Your task to perform on an android device: Open Google Chrome and open the bookmarks view Image 0: 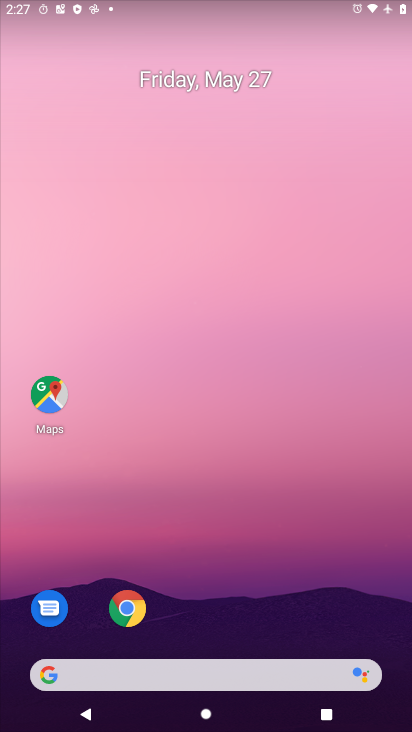
Step 0: press home button
Your task to perform on an android device: Open Google Chrome and open the bookmarks view Image 1: 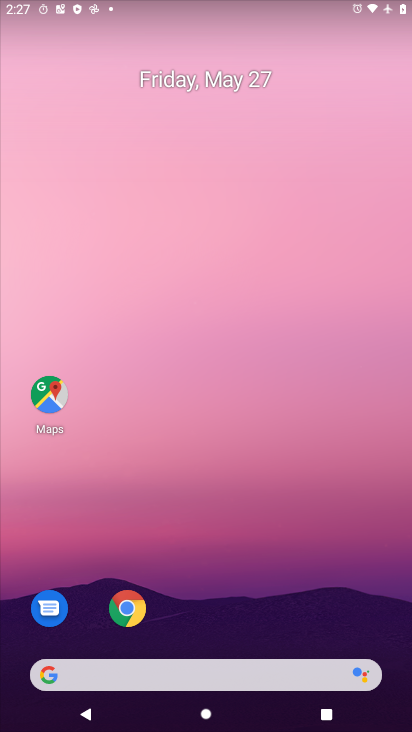
Step 1: click (128, 614)
Your task to perform on an android device: Open Google Chrome and open the bookmarks view Image 2: 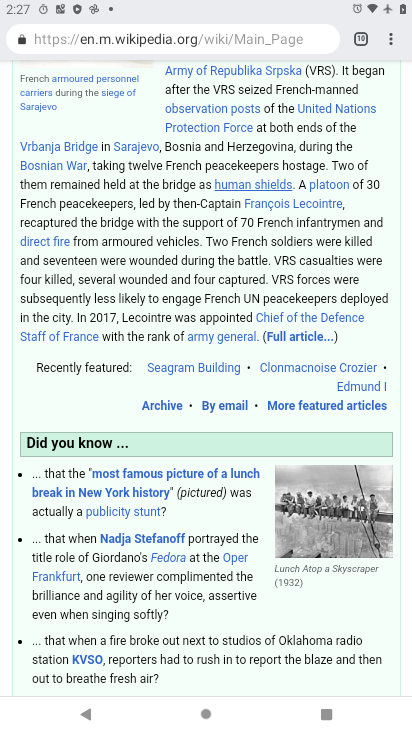
Step 2: task complete